Your task to perform on an android device: Set the phone to "Do not disturb". Image 0: 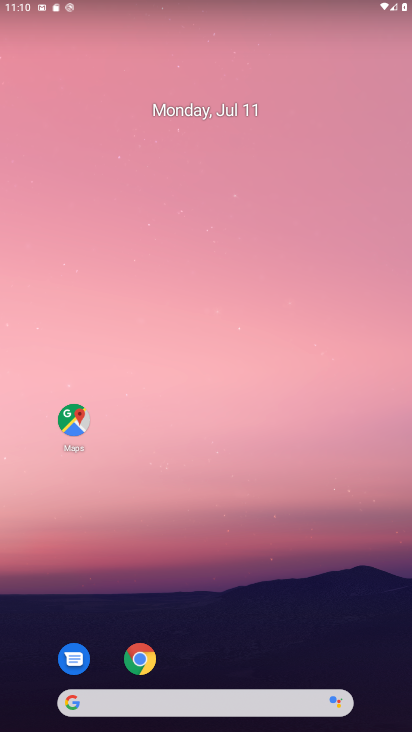
Step 0: drag from (330, 623) to (336, 11)
Your task to perform on an android device: Set the phone to "Do not disturb". Image 1: 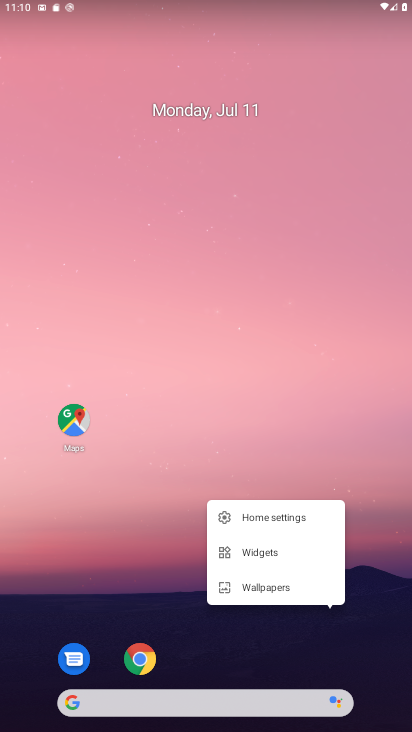
Step 1: drag from (389, 640) to (312, 48)
Your task to perform on an android device: Set the phone to "Do not disturb". Image 2: 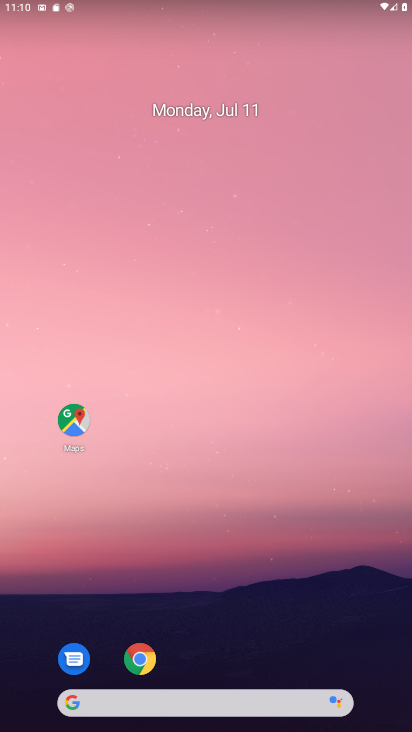
Step 2: click (342, 200)
Your task to perform on an android device: Set the phone to "Do not disturb". Image 3: 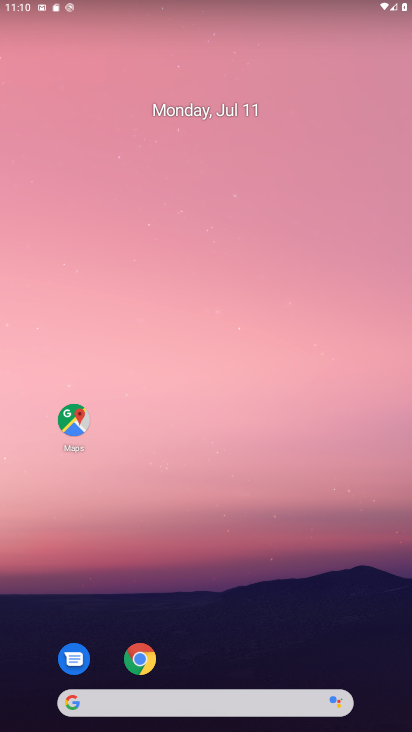
Step 3: drag from (396, 627) to (325, 59)
Your task to perform on an android device: Set the phone to "Do not disturb". Image 4: 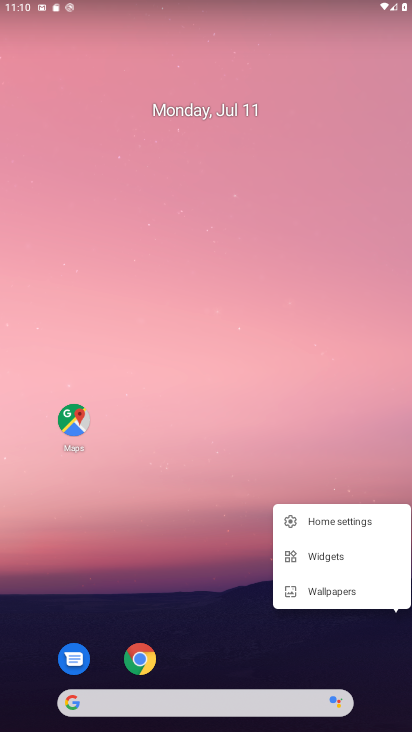
Step 4: drag from (342, 310) to (304, 150)
Your task to perform on an android device: Set the phone to "Do not disturb". Image 5: 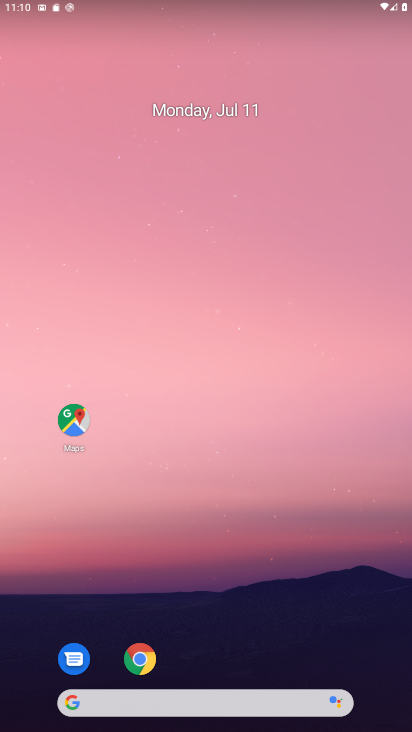
Step 5: drag from (242, 501) to (249, 6)
Your task to perform on an android device: Set the phone to "Do not disturb". Image 6: 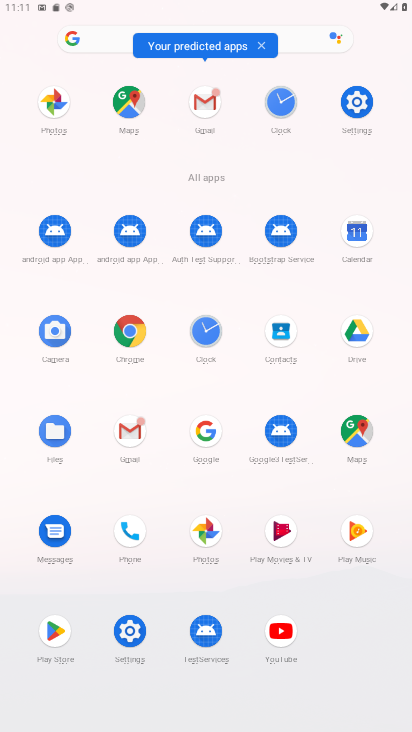
Step 6: click (364, 106)
Your task to perform on an android device: Set the phone to "Do not disturb". Image 7: 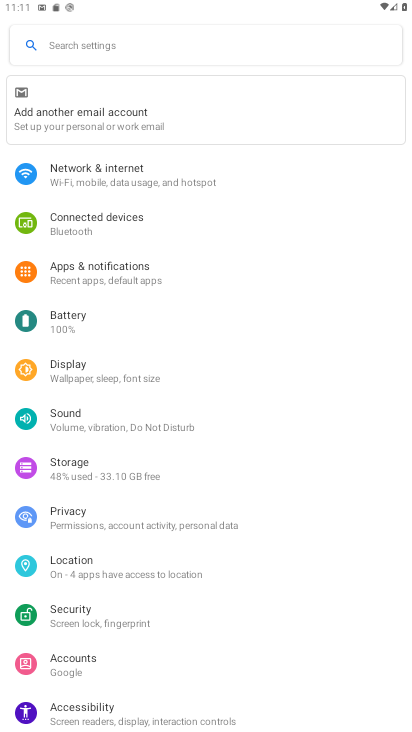
Step 7: click (152, 417)
Your task to perform on an android device: Set the phone to "Do not disturb". Image 8: 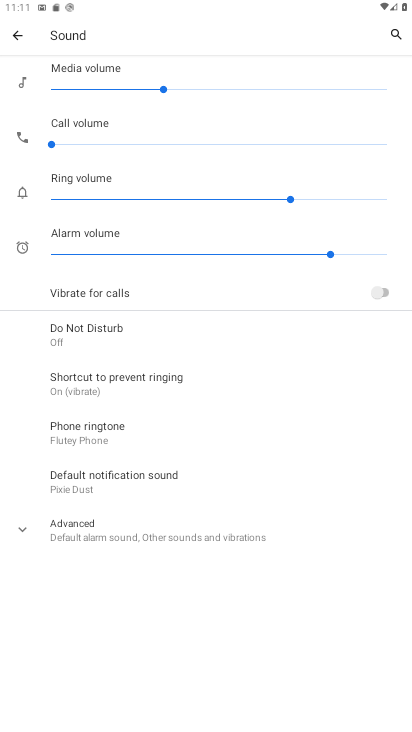
Step 8: click (143, 338)
Your task to perform on an android device: Set the phone to "Do not disturb". Image 9: 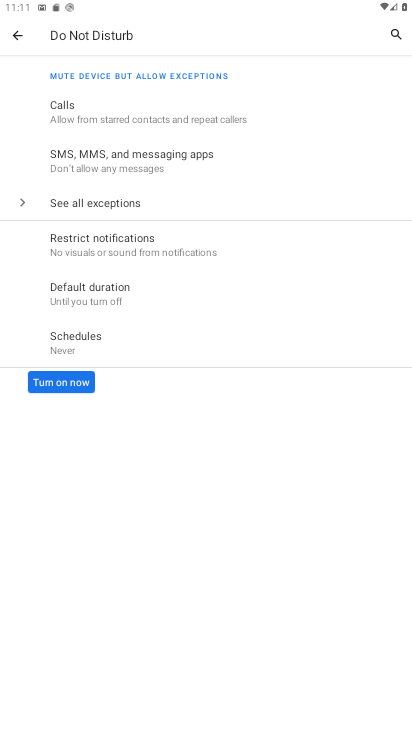
Step 9: click (84, 379)
Your task to perform on an android device: Set the phone to "Do not disturb". Image 10: 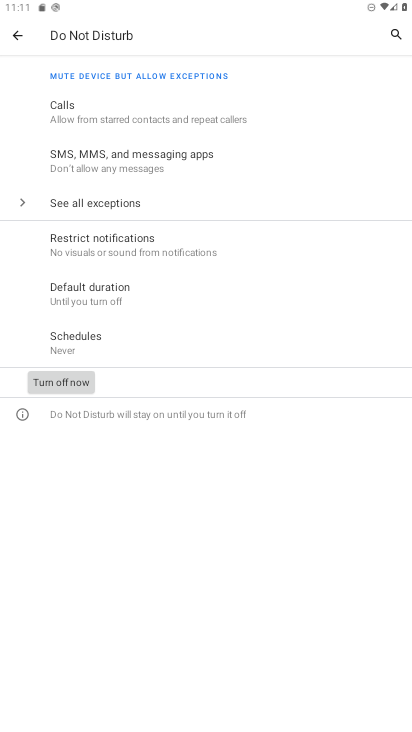
Step 10: task complete